Your task to perform on an android device: check data usage Image 0: 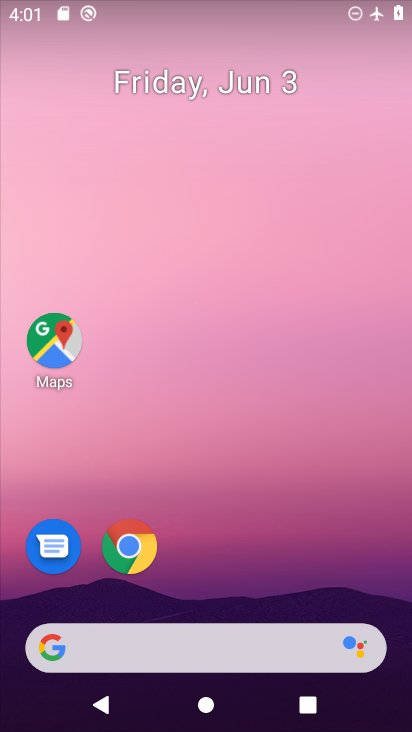
Step 0: drag from (242, 579) to (263, 20)
Your task to perform on an android device: check data usage Image 1: 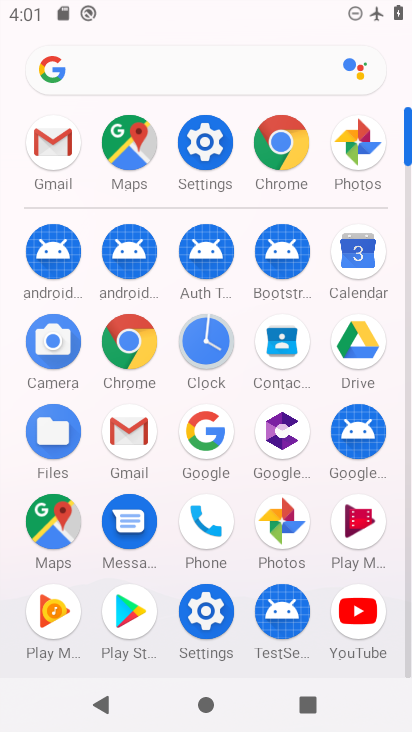
Step 1: click (220, 150)
Your task to perform on an android device: check data usage Image 2: 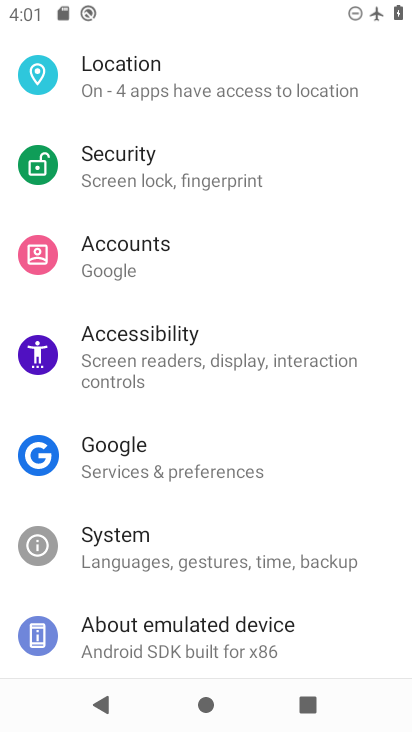
Step 2: drag from (217, 219) to (267, 684)
Your task to perform on an android device: check data usage Image 3: 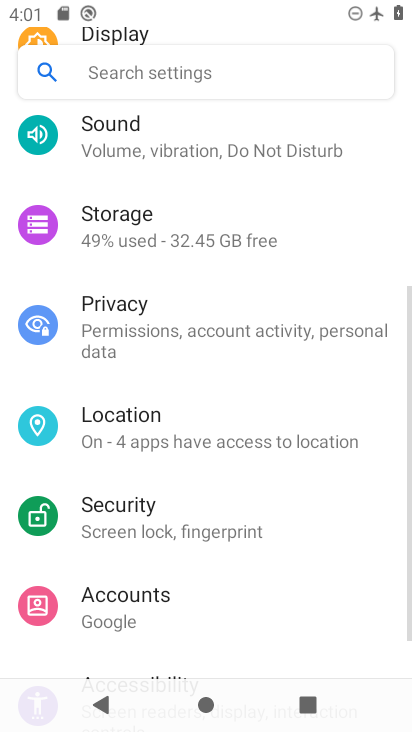
Step 3: drag from (276, 272) to (261, 670)
Your task to perform on an android device: check data usage Image 4: 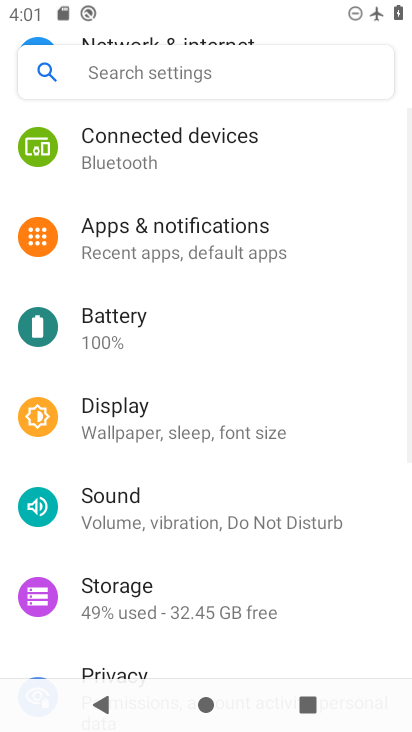
Step 4: drag from (246, 305) to (265, 642)
Your task to perform on an android device: check data usage Image 5: 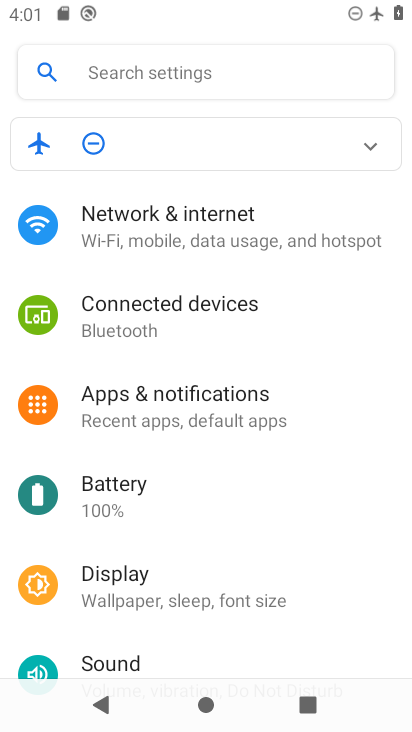
Step 5: click (253, 241)
Your task to perform on an android device: check data usage Image 6: 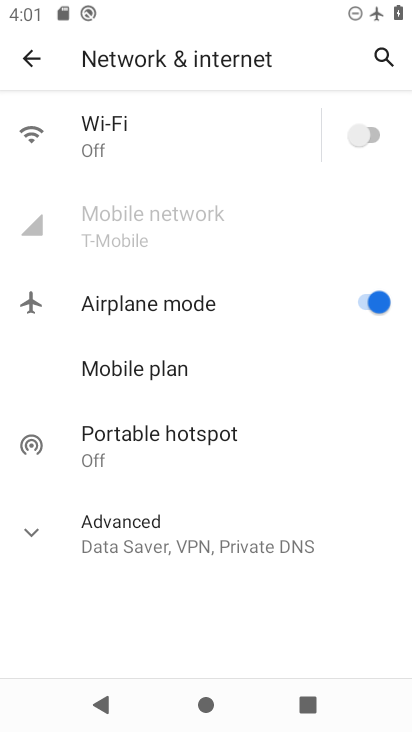
Step 6: click (371, 298)
Your task to perform on an android device: check data usage Image 7: 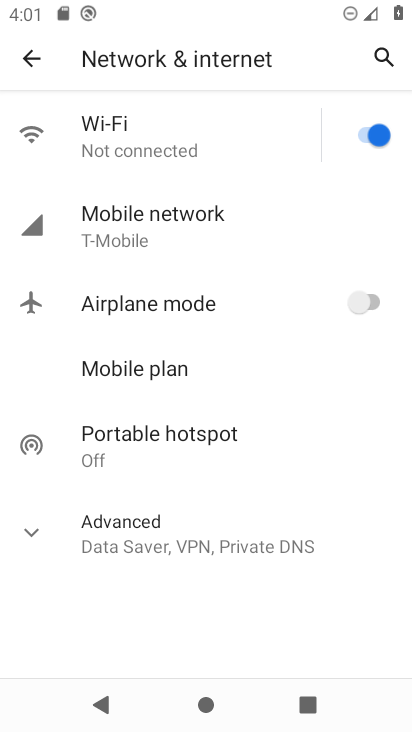
Step 7: click (359, 121)
Your task to perform on an android device: check data usage Image 8: 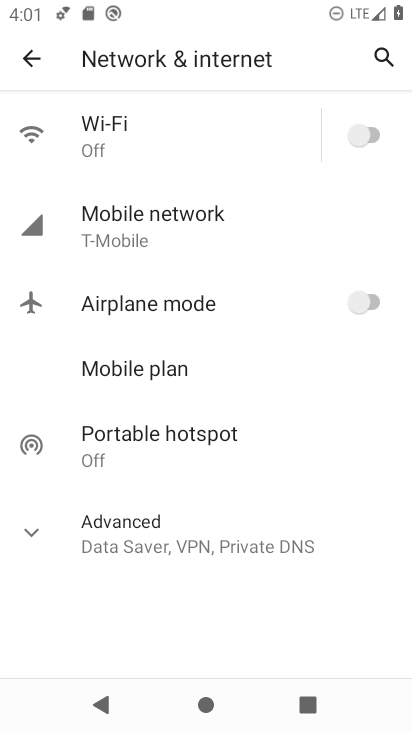
Step 8: click (360, 129)
Your task to perform on an android device: check data usage Image 9: 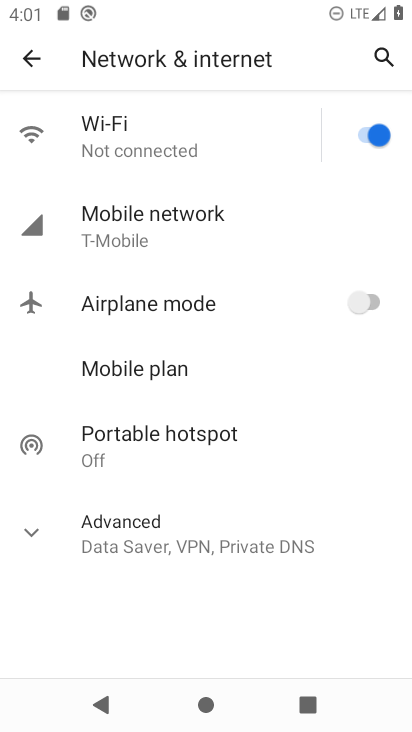
Step 9: click (221, 224)
Your task to perform on an android device: check data usage Image 10: 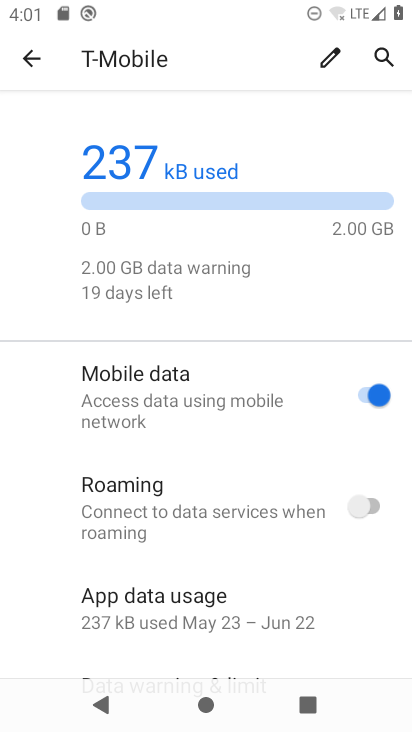
Step 10: task complete